Your task to perform on an android device: Search for vegetarian restaurants on Maps Image 0: 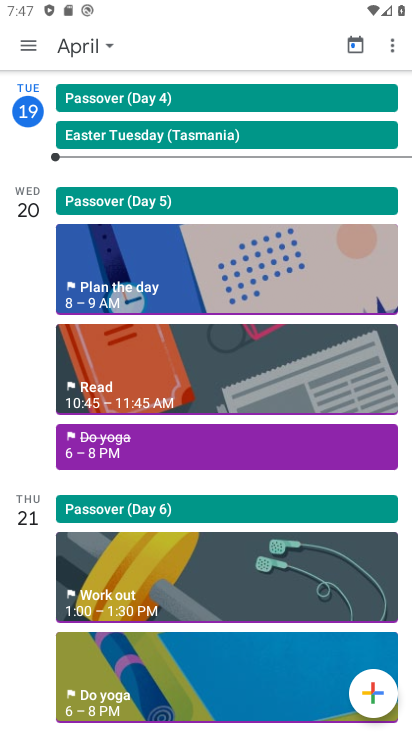
Step 0: press back button
Your task to perform on an android device: Search for vegetarian restaurants on Maps Image 1: 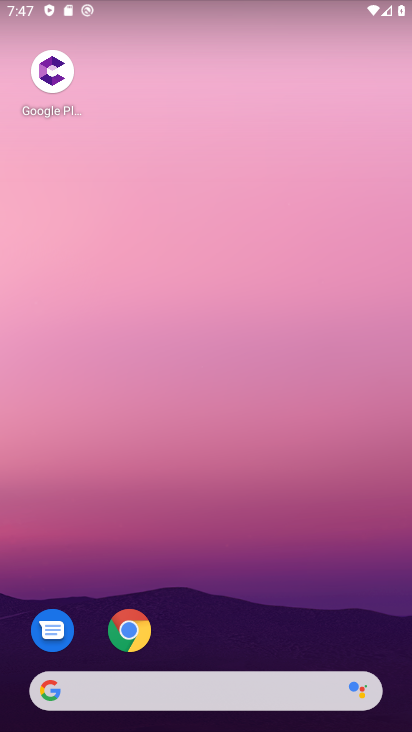
Step 1: drag from (229, 490) to (195, 72)
Your task to perform on an android device: Search for vegetarian restaurants on Maps Image 2: 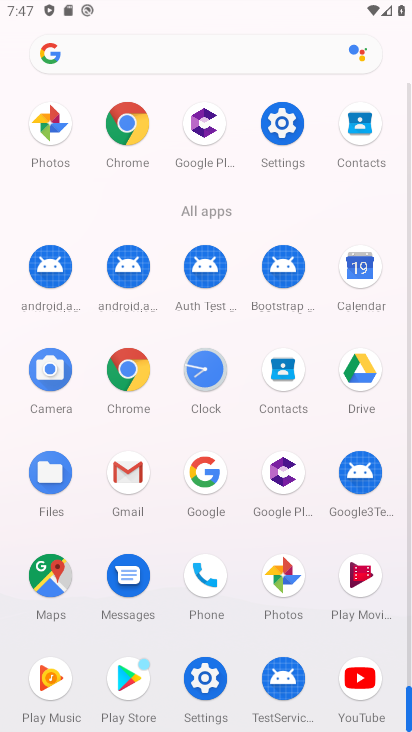
Step 2: drag from (0, 563) to (17, 323)
Your task to perform on an android device: Search for vegetarian restaurants on Maps Image 3: 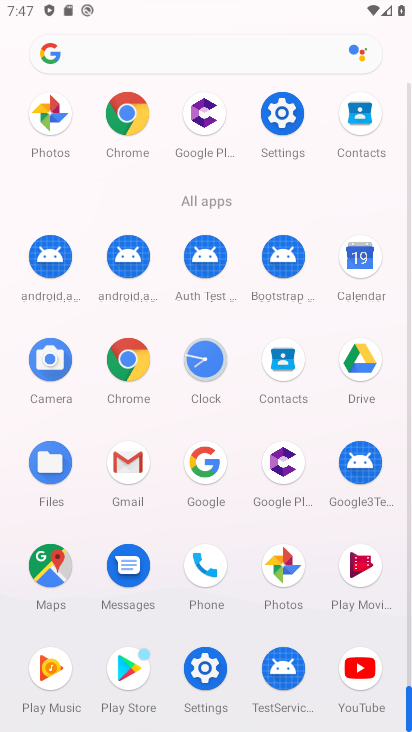
Step 3: click (50, 565)
Your task to perform on an android device: Search for vegetarian restaurants on Maps Image 4: 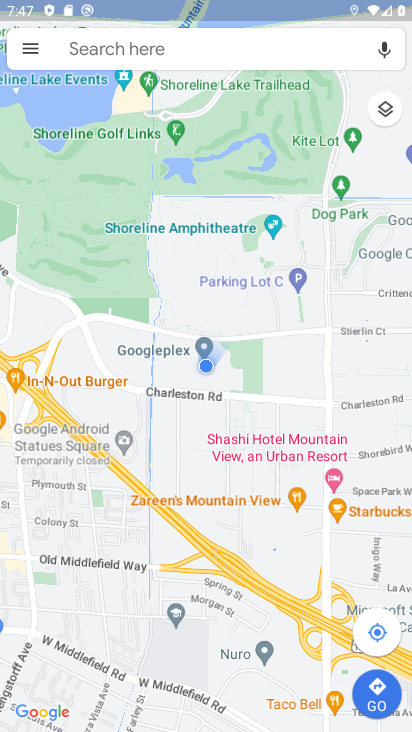
Step 4: click (221, 49)
Your task to perform on an android device: Search for vegetarian restaurants on Maps Image 5: 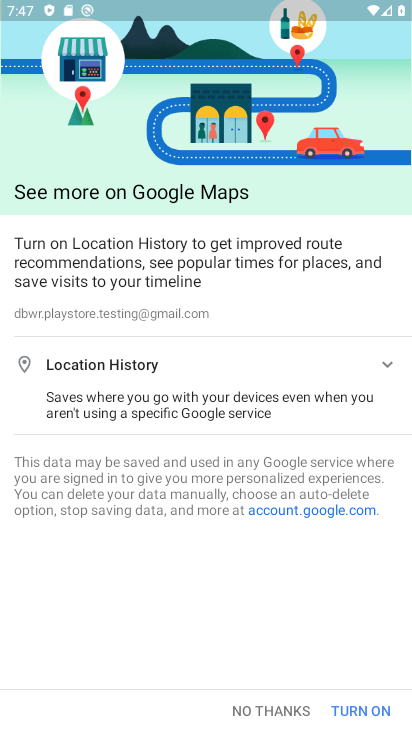
Step 5: click (364, 709)
Your task to perform on an android device: Search for vegetarian restaurants on Maps Image 6: 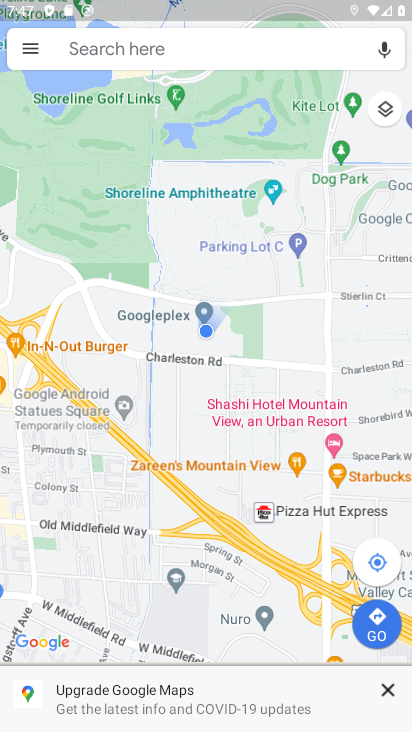
Step 6: click (165, 50)
Your task to perform on an android device: Search for vegetarian restaurants on Maps Image 7: 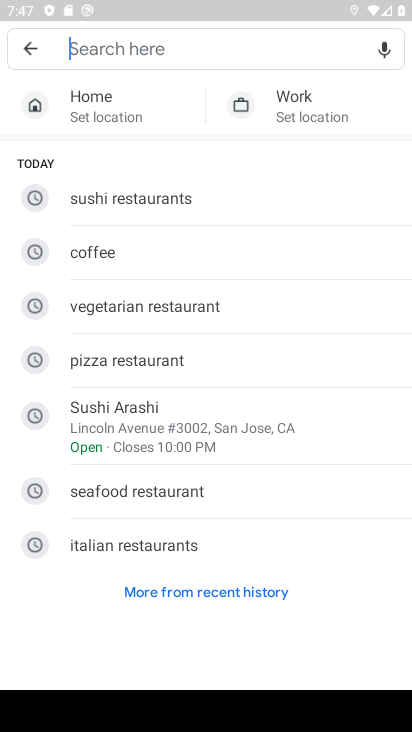
Step 7: click (209, 306)
Your task to perform on an android device: Search for vegetarian restaurants on Maps Image 8: 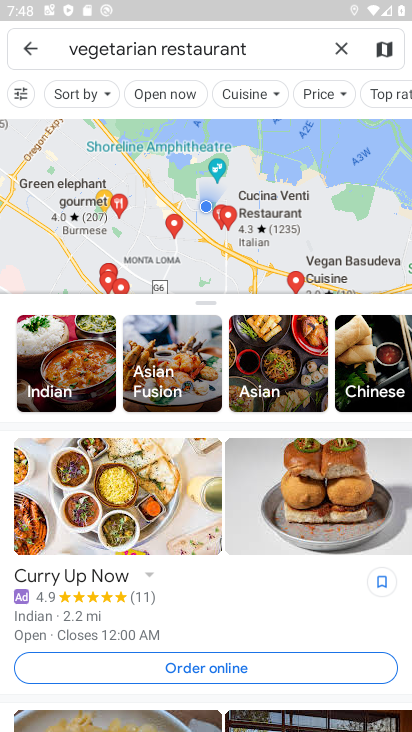
Step 8: task complete